Your task to perform on an android device: Open wifi settings Image 0: 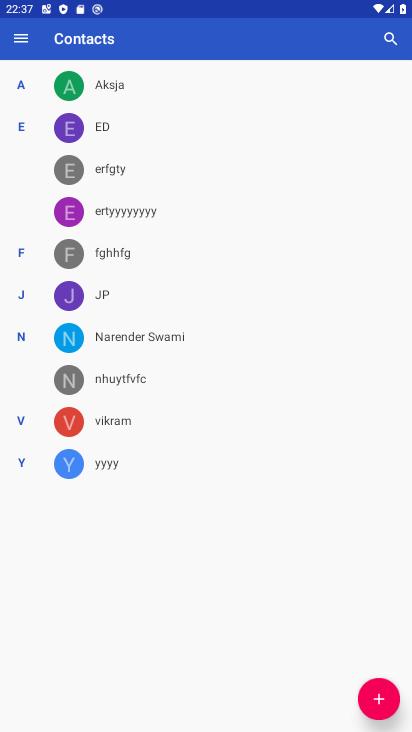
Step 0: press home button
Your task to perform on an android device: Open wifi settings Image 1: 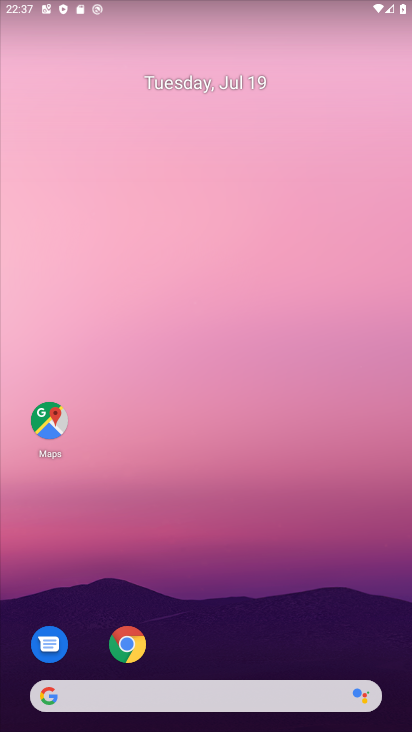
Step 1: drag from (214, 712) to (214, 114)
Your task to perform on an android device: Open wifi settings Image 2: 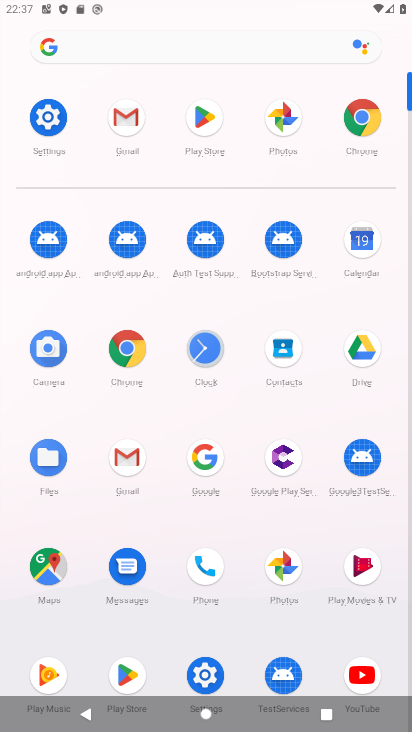
Step 2: click (50, 115)
Your task to perform on an android device: Open wifi settings Image 3: 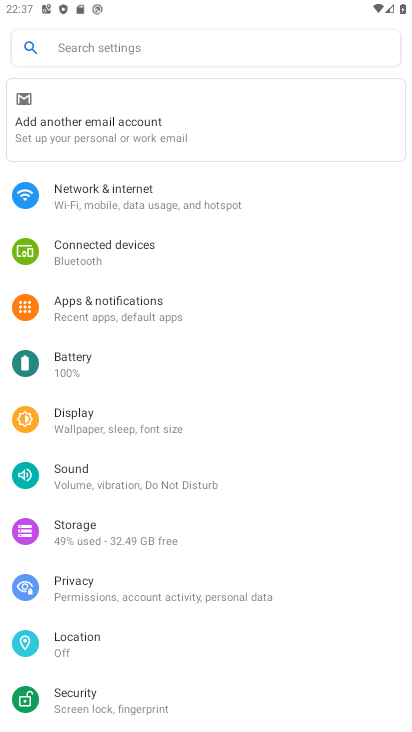
Step 3: click (113, 205)
Your task to perform on an android device: Open wifi settings Image 4: 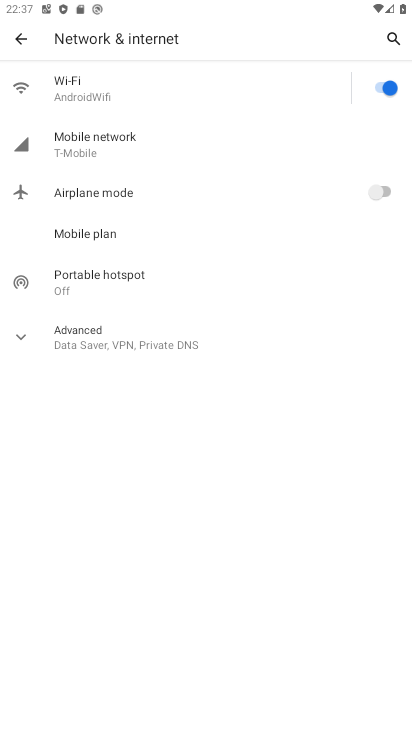
Step 4: click (82, 90)
Your task to perform on an android device: Open wifi settings Image 5: 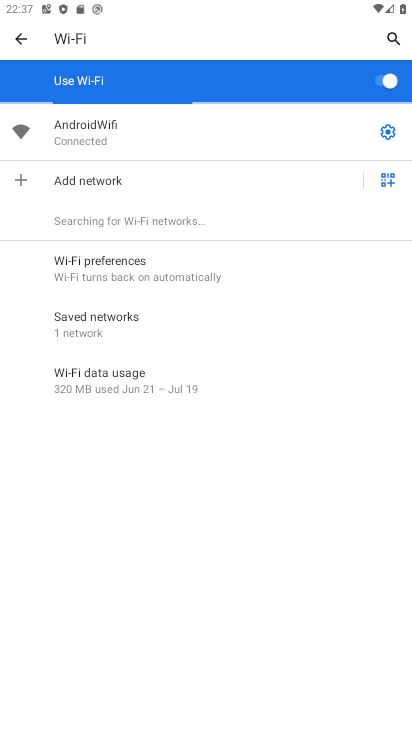
Step 5: task complete